Your task to perform on an android device: change timer sound Image 0: 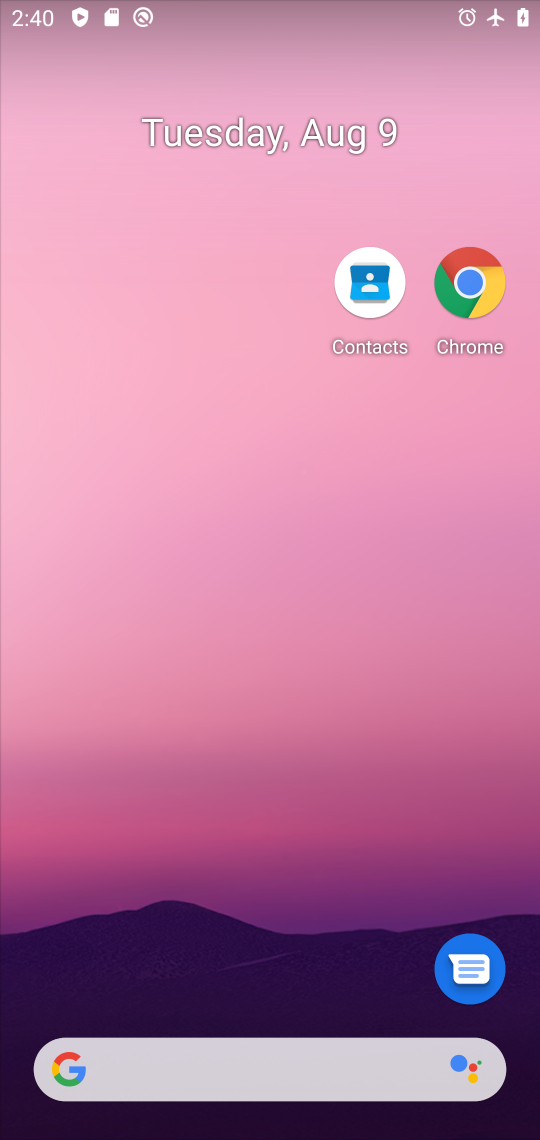
Step 0: drag from (300, 899) to (295, 232)
Your task to perform on an android device: change timer sound Image 1: 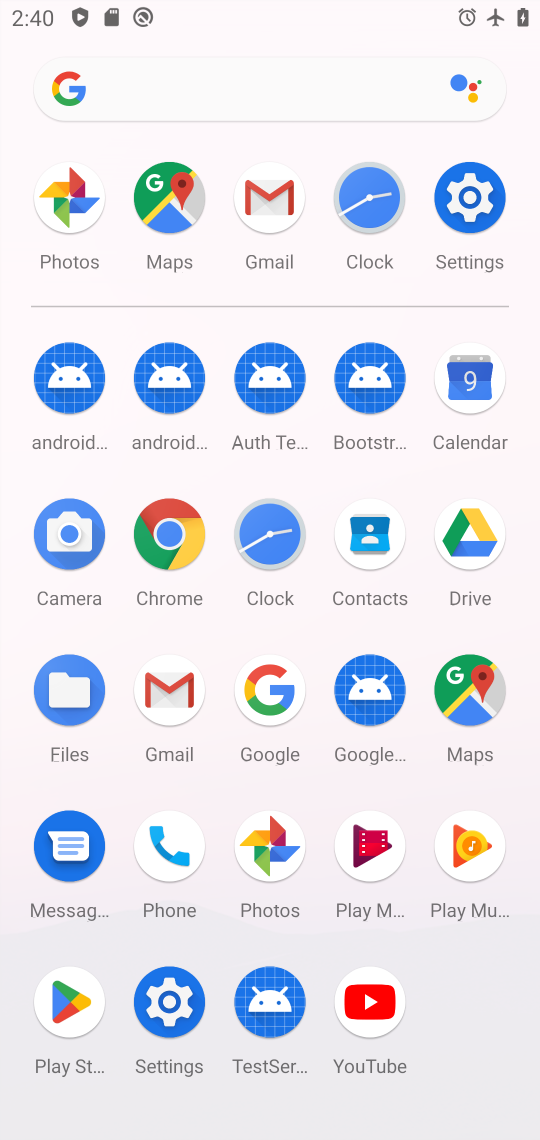
Step 1: click (253, 528)
Your task to perform on an android device: change timer sound Image 2: 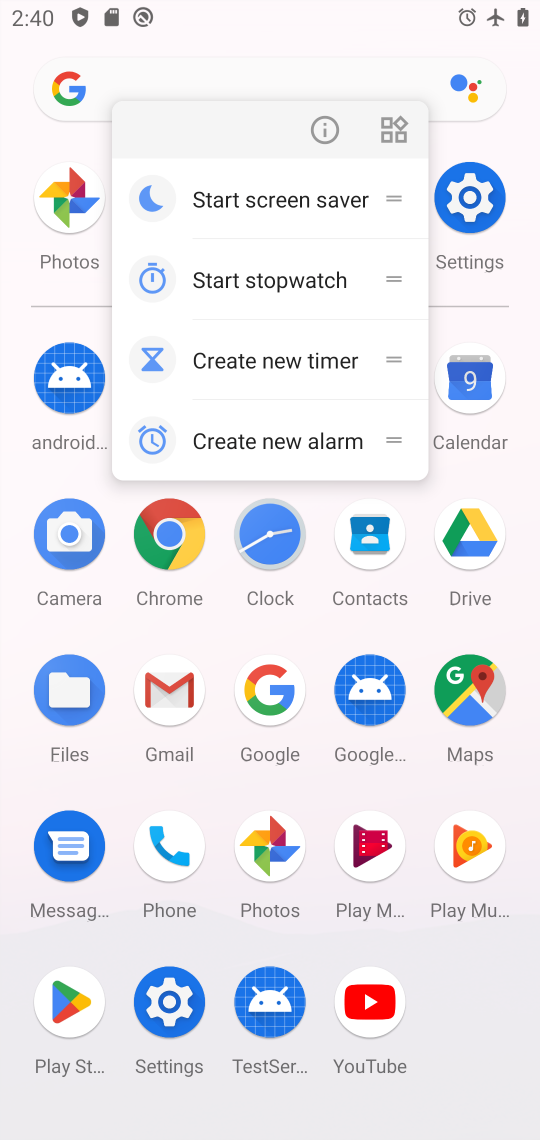
Step 2: click (315, 109)
Your task to perform on an android device: change timer sound Image 3: 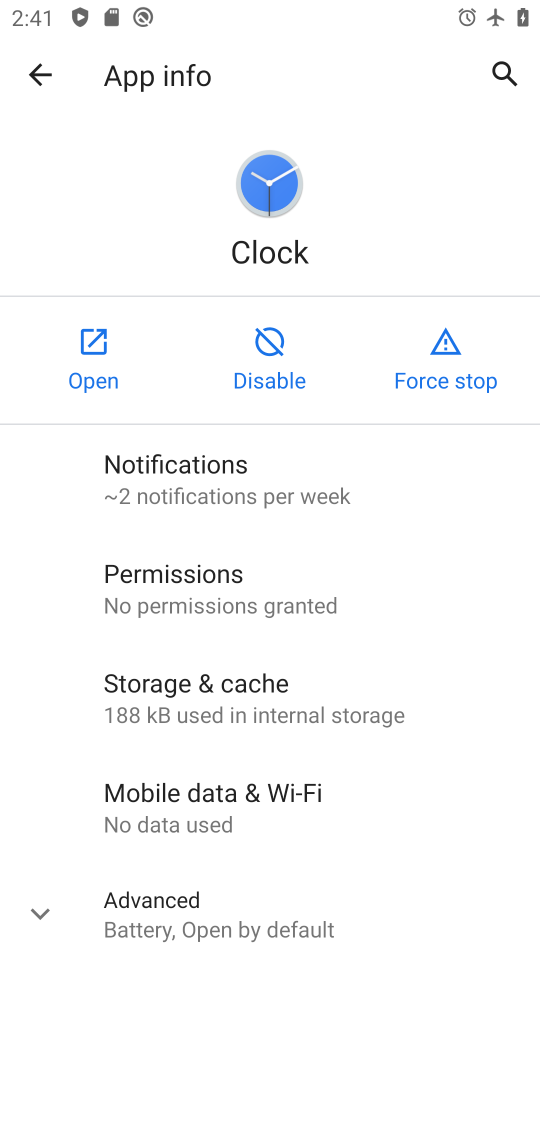
Step 3: click (60, 322)
Your task to perform on an android device: change timer sound Image 4: 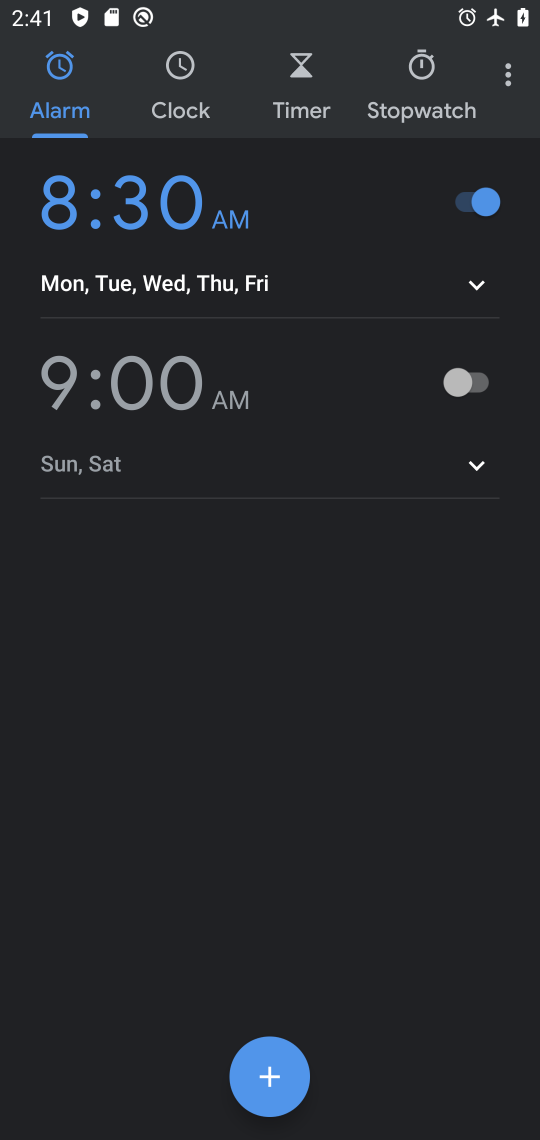
Step 4: click (510, 68)
Your task to perform on an android device: change timer sound Image 5: 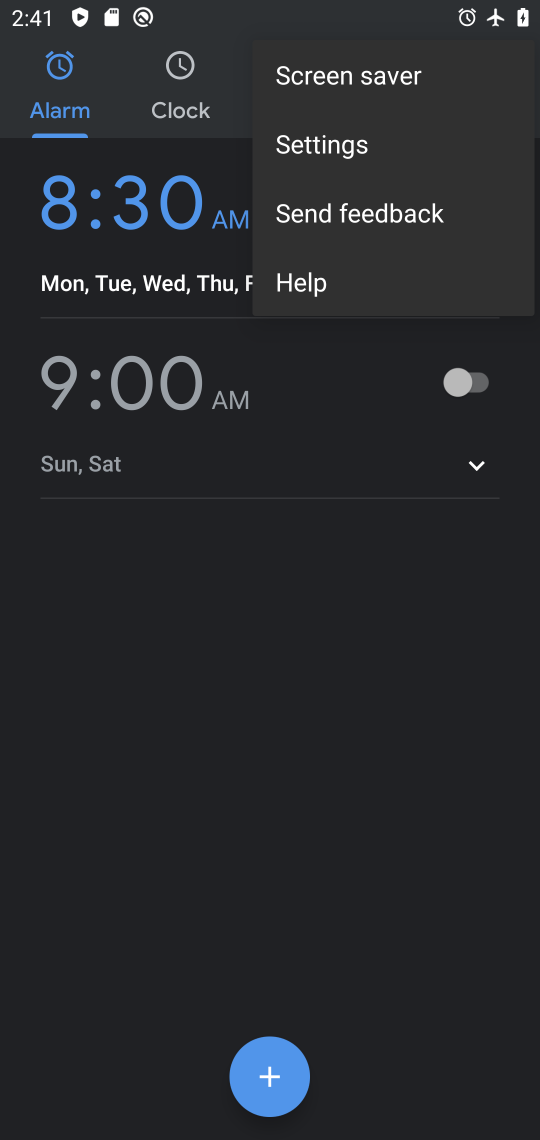
Step 5: click (318, 142)
Your task to perform on an android device: change timer sound Image 6: 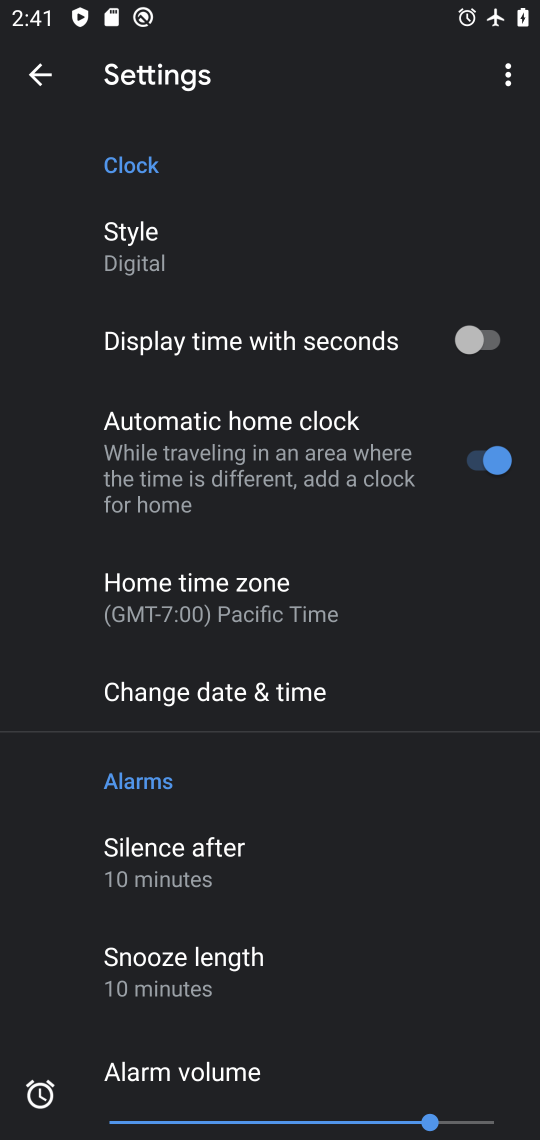
Step 6: drag from (253, 970) to (337, 305)
Your task to perform on an android device: change timer sound Image 7: 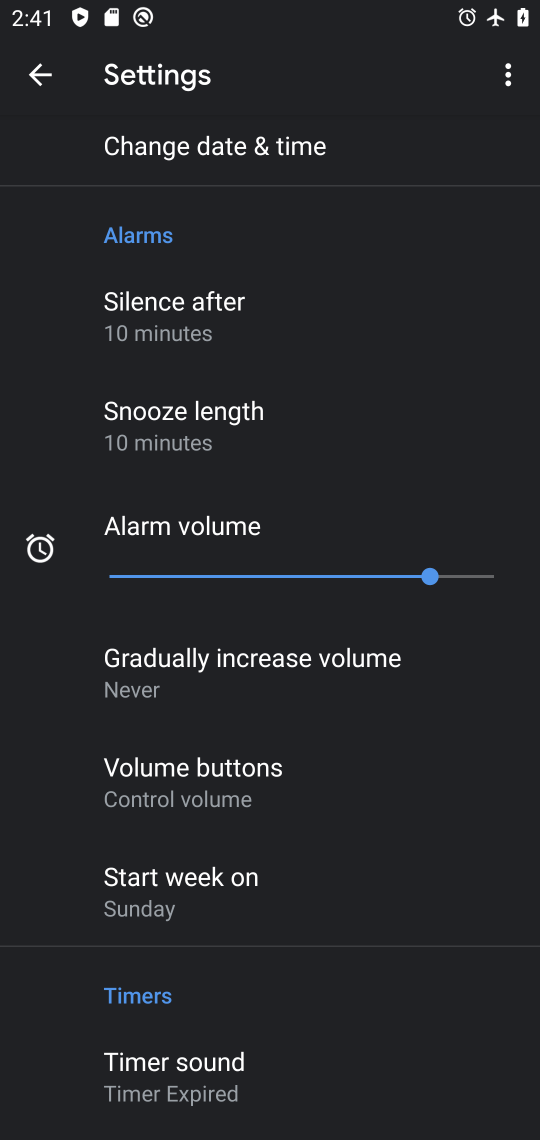
Step 7: click (190, 1065)
Your task to perform on an android device: change timer sound Image 8: 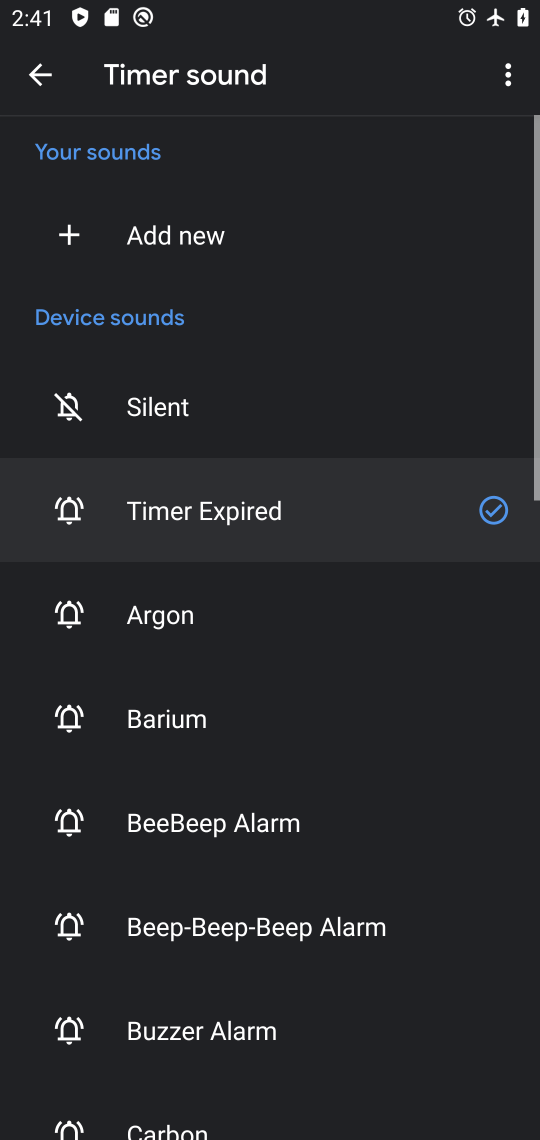
Step 8: drag from (239, 935) to (378, 124)
Your task to perform on an android device: change timer sound Image 9: 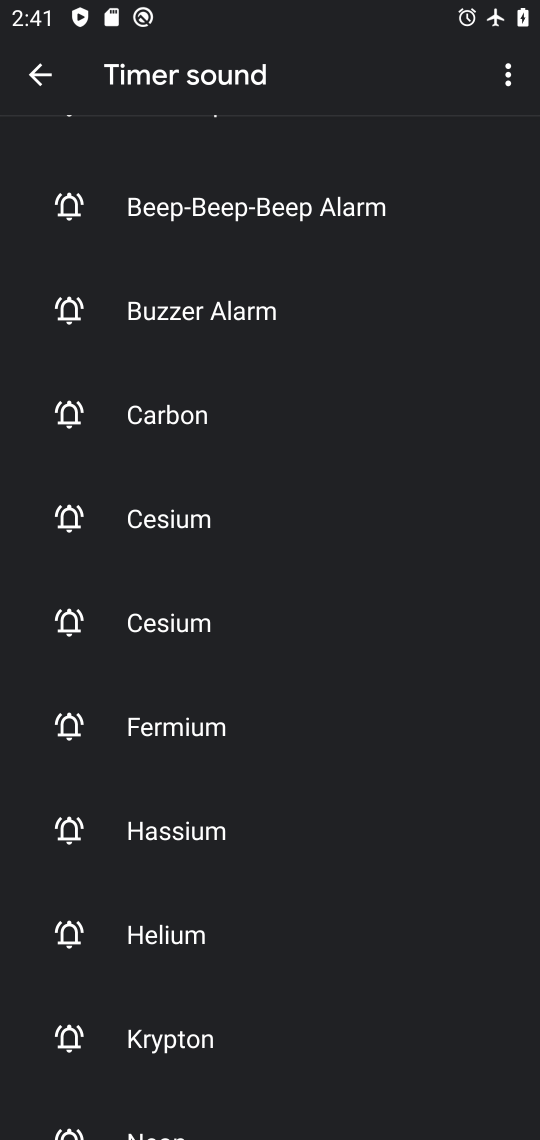
Step 9: click (279, 338)
Your task to perform on an android device: change timer sound Image 10: 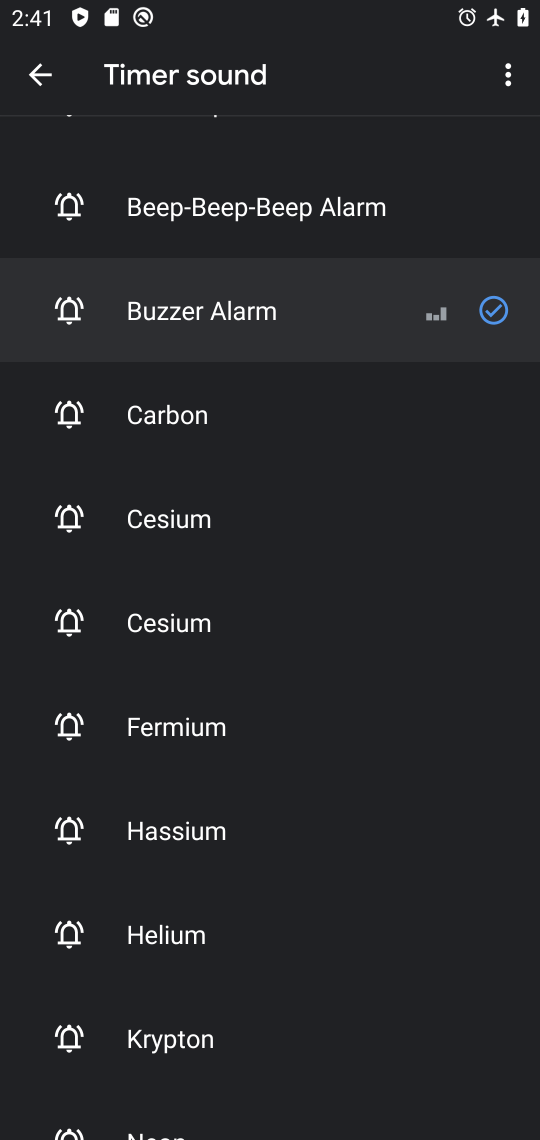
Step 10: click (493, 325)
Your task to perform on an android device: change timer sound Image 11: 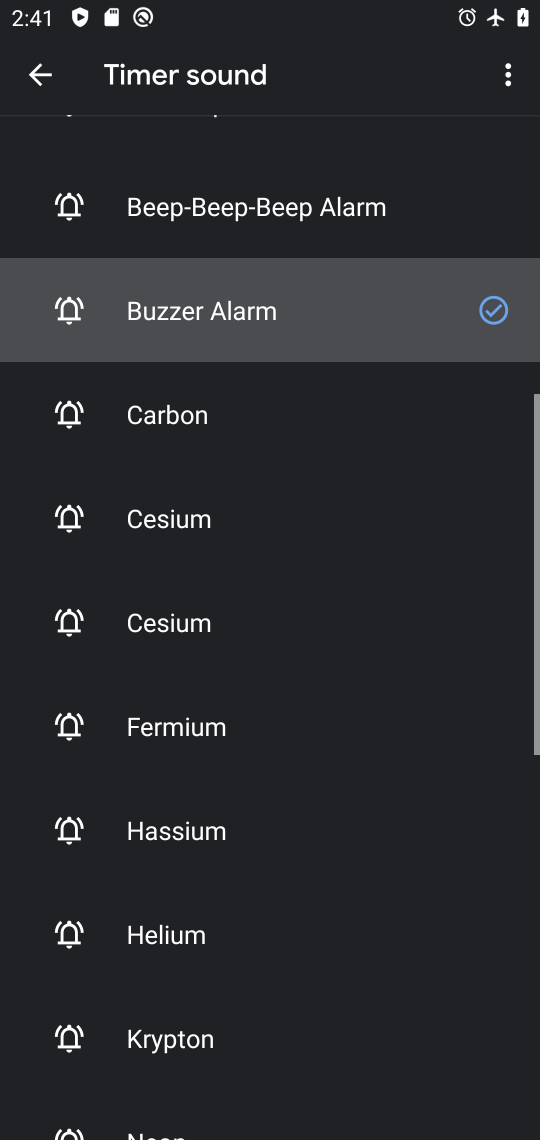
Step 11: task complete